Your task to perform on an android device: Open Youtube and go to "Your channel" Image 0: 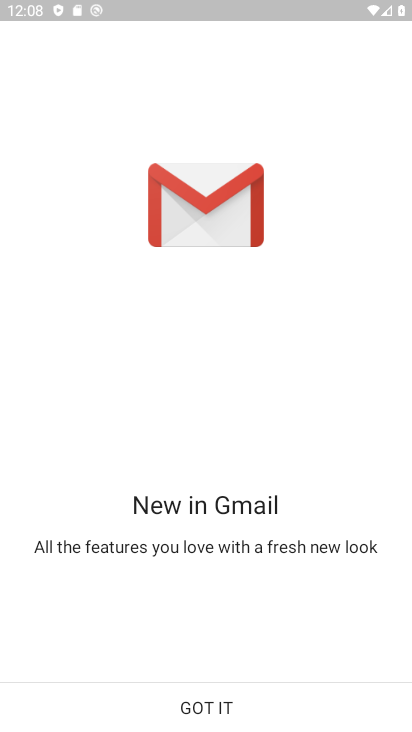
Step 0: press home button
Your task to perform on an android device: Open Youtube and go to "Your channel" Image 1: 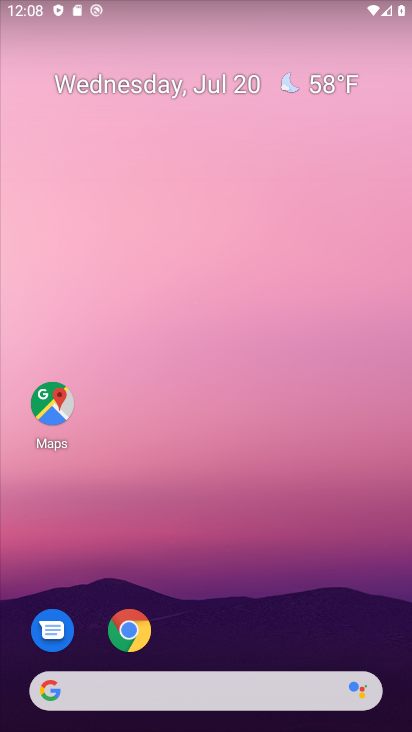
Step 1: drag from (187, 688) to (345, 101)
Your task to perform on an android device: Open Youtube and go to "Your channel" Image 2: 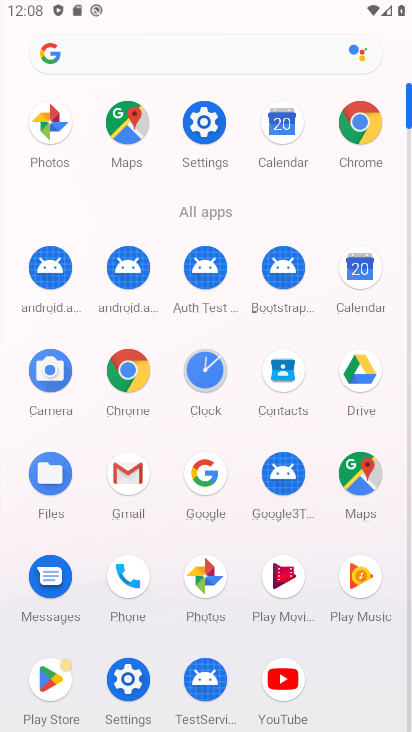
Step 2: click (281, 677)
Your task to perform on an android device: Open Youtube and go to "Your channel" Image 3: 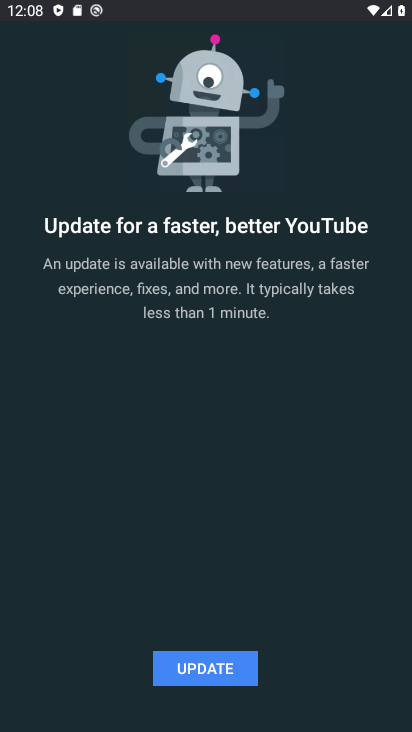
Step 3: click (216, 663)
Your task to perform on an android device: Open Youtube and go to "Your channel" Image 4: 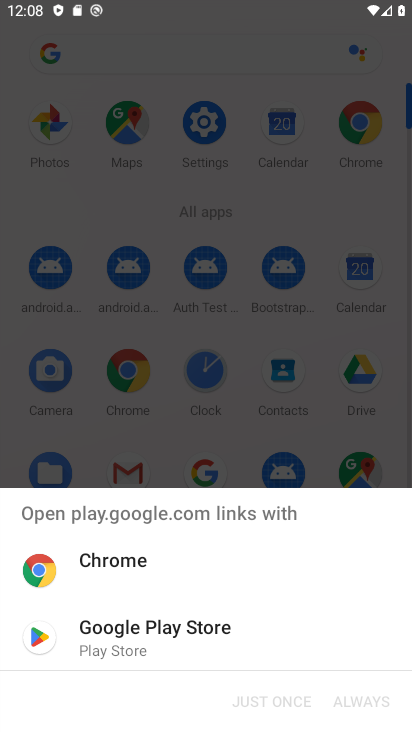
Step 4: click (155, 625)
Your task to perform on an android device: Open Youtube and go to "Your channel" Image 5: 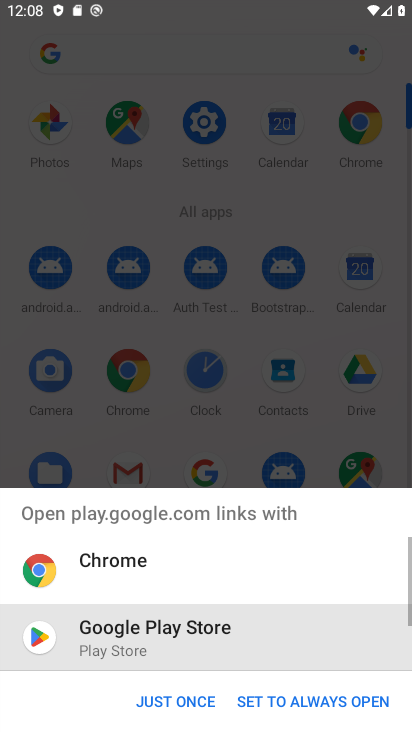
Step 5: click (179, 702)
Your task to perform on an android device: Open Youtube and go to "Your channel" Image 6: 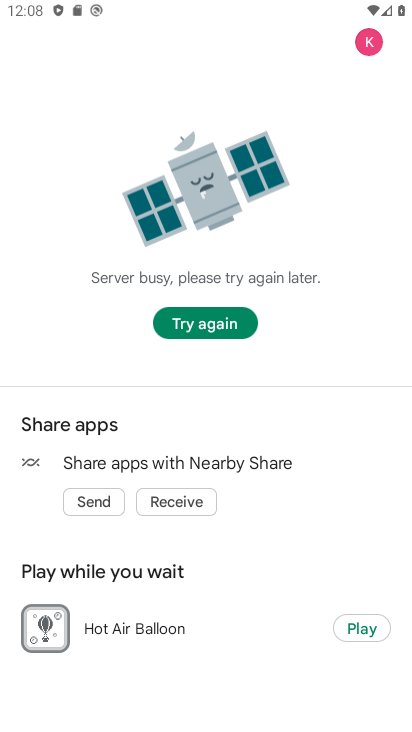
Step 6: click (216, 314)
Your task to perform on an android device: Open Youtube and go to "Your channel" Image 7: 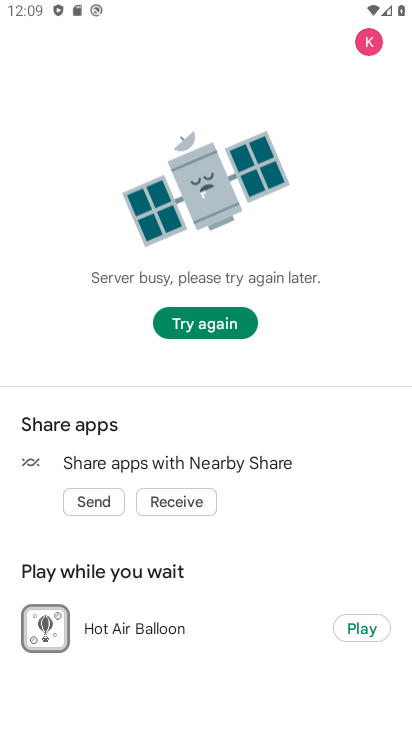
Step 7: click (216, 317)
Your task to perform on an android device: Open Youtube and go to "Your channel" Image 8: 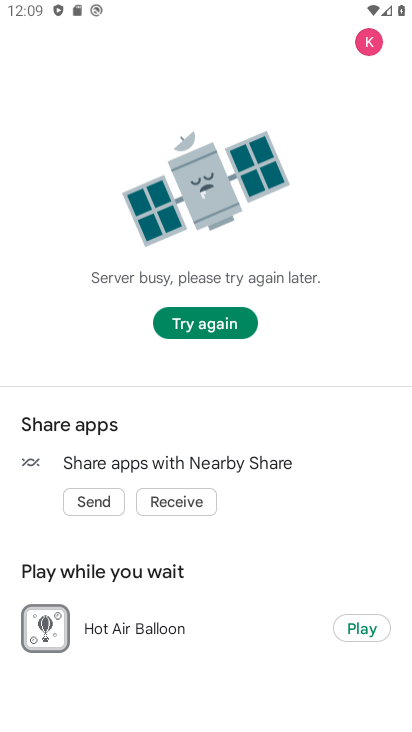
Step 8: task complete